Your task to perform on an android device: Turn off the flashlight Image 0: 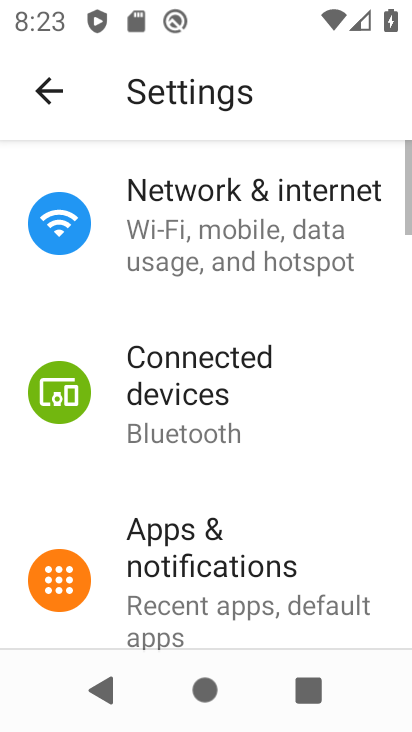
Step 0: press home button
Your task to perform on an android device: Turn off the flashlight Image 1: 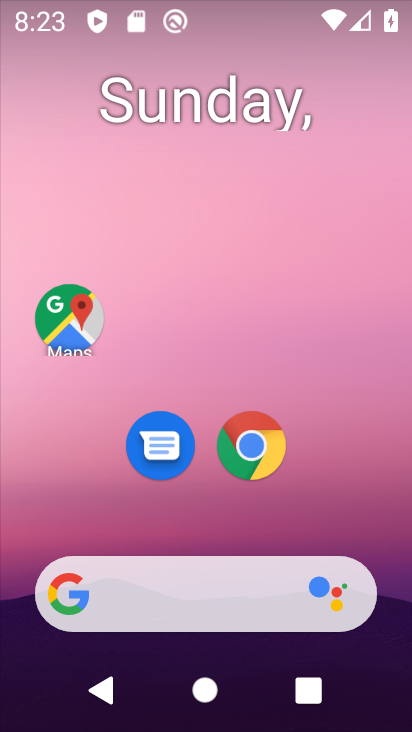
Step 1: task complete